Your task to perform on an android device: turn smart compose on in the gmail app Image 0: 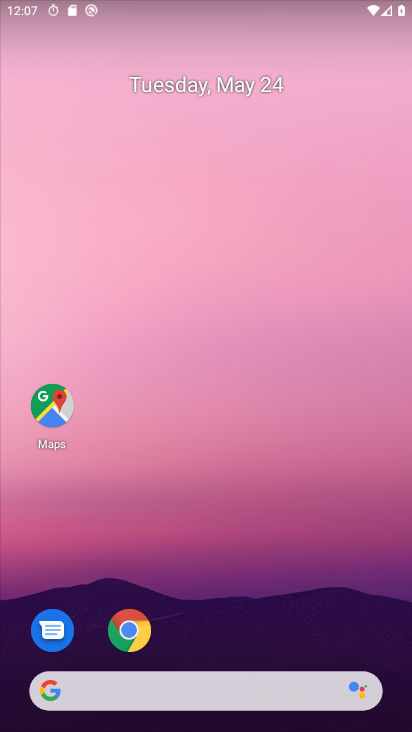
Step 0: drag from (190, 638) to (258, 213)
Your task to perform on an android device: turn smart compose on in the gmail app Image 1: 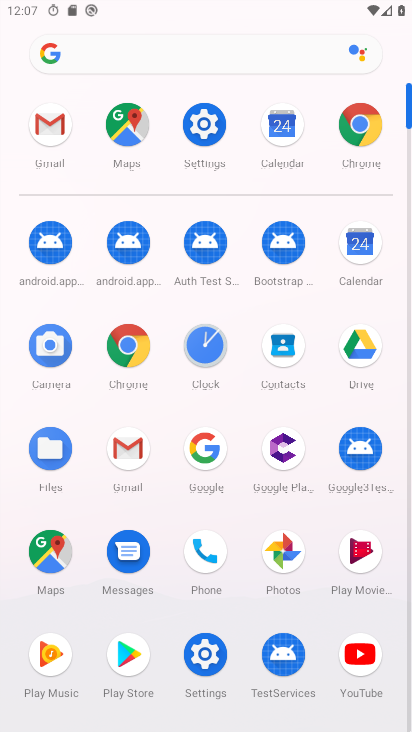
Step 1: click (137, 460)
Your task to perform on an android device: turn smart compose on in the gmail app Image 2: 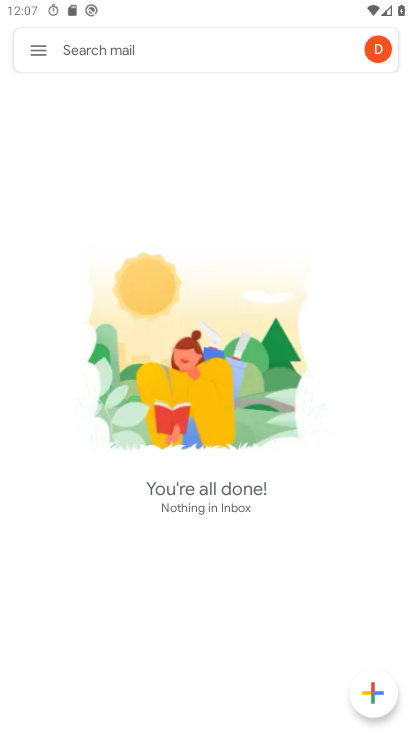
Step 2: click (33, 45)
Your task to perform on an android device: turn smart compose on in the gmail app Image 3: 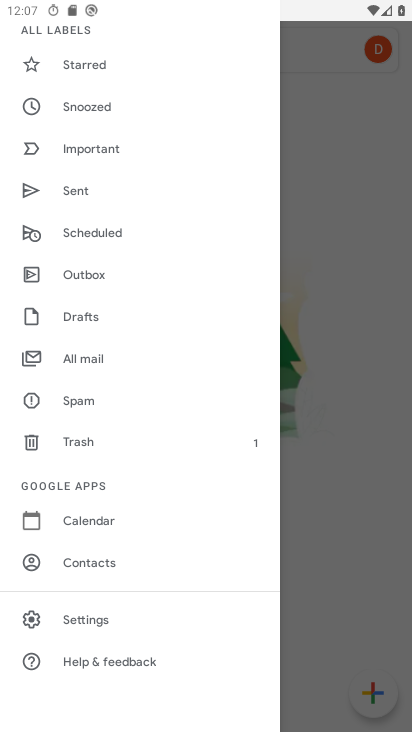
Step 3: click (102, 624)
Your task to perform on an android device: turn smart compose on in the gmail app Image 4: 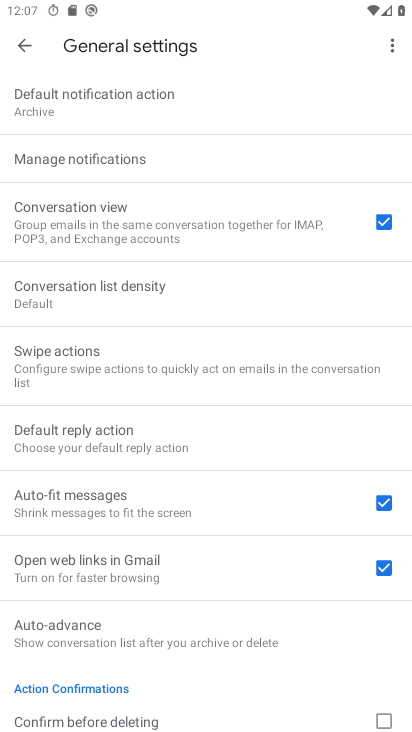
Step 4: click (29, 48)
Your task to perform on an android device: turn smart compose on in the gmail app Image 5: 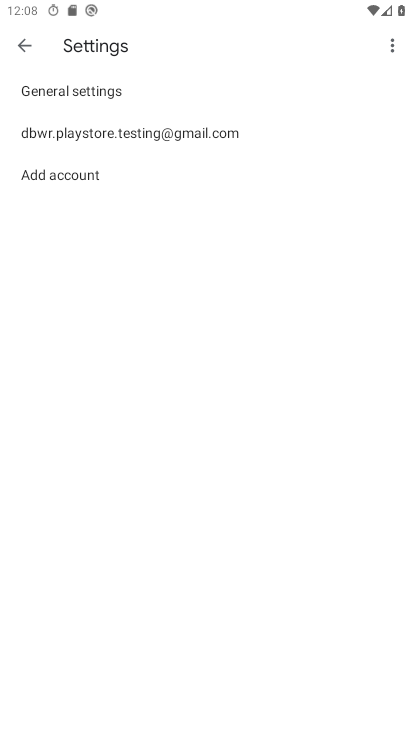
Step 5: click (157, 140)
Your task to perform on an android device: turn smart compose on in the gmail app Image 6: 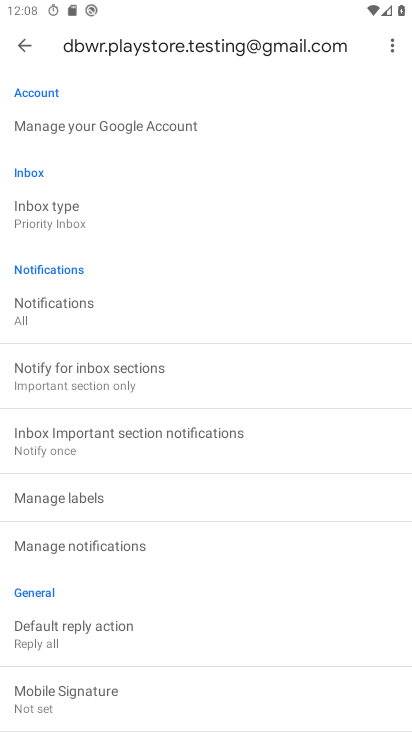
Step 6: task complete